Your task to perform on an android device: Go to settings Image 0: 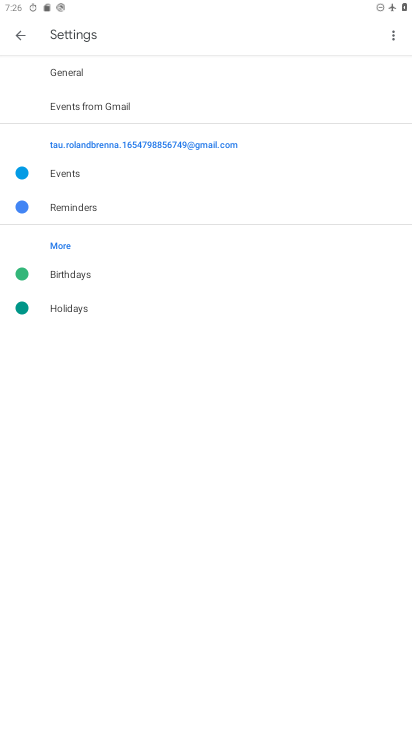
Step 0: press home button
Your task to perform on an android device: Go to settings Image 1: 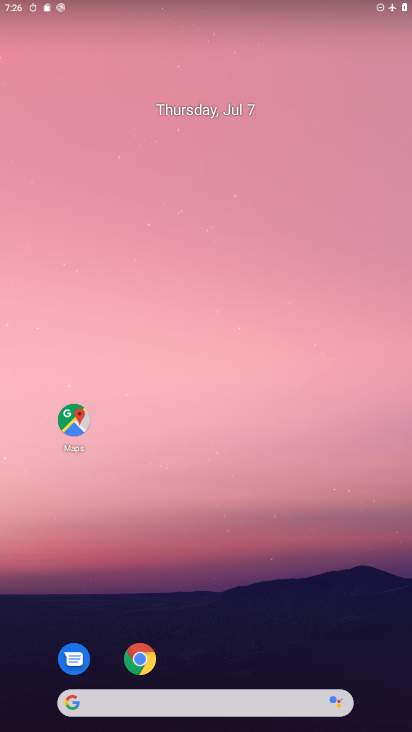
Step 1: drag from (340, 649) to (201, 39)
Your task to perform on an android device: Go to settings Image 2: 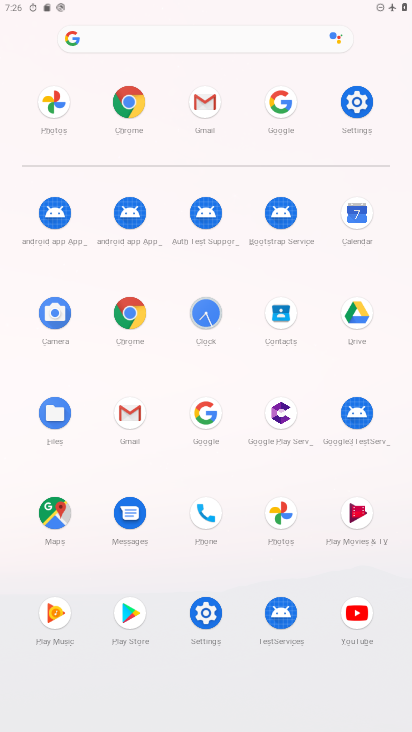
Step 2: click (203, 608)
Your task to perform on an android device: Go to settings Image 3: 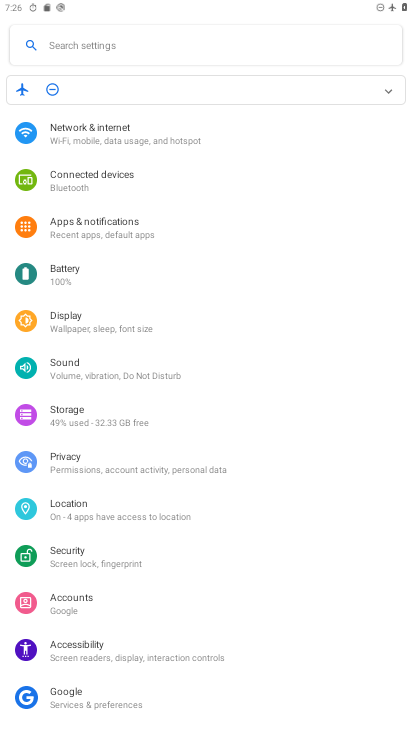
Step 3: task complete